Your task to perform on an android device: Show me popular videos on Youtube Image 0: 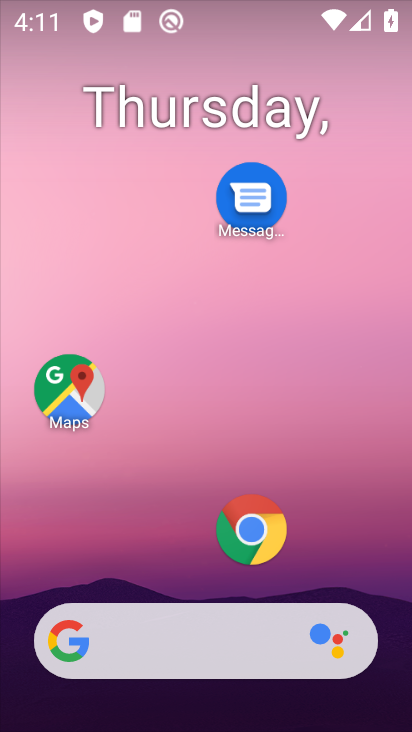
Step 0: click (266, 529)
Your task to perform on an android device: Show me popular videos on Youtube Image 1: 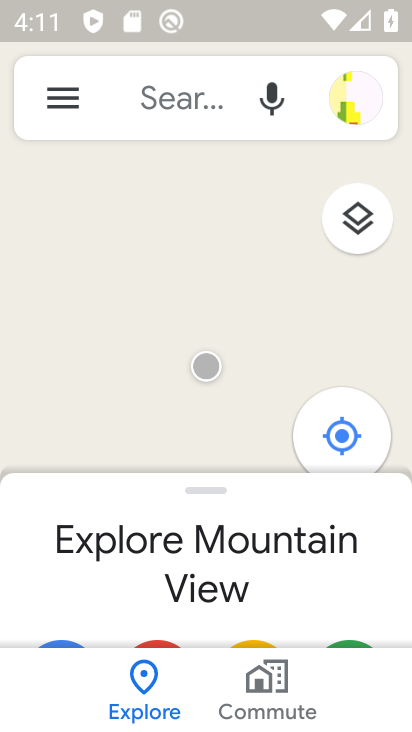
Step 1: press home button
Your task to perform on an android device: Show me popular videos on Youtube Image 2: 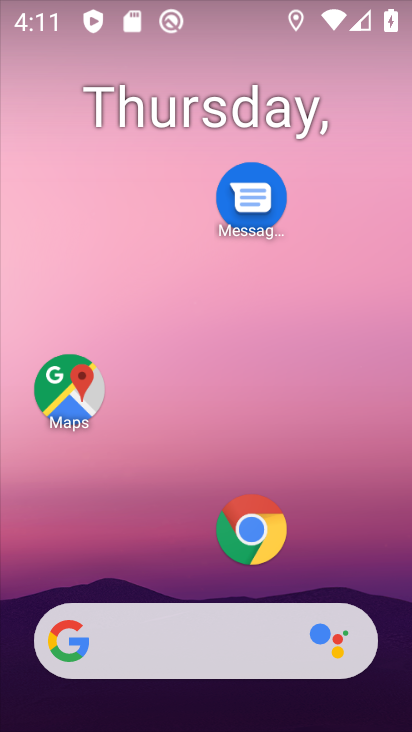
Step 2: drag from (147, 549) to (236, 43)
Your task to perform on an android device: Show me popular videos on Youtube Image 3: 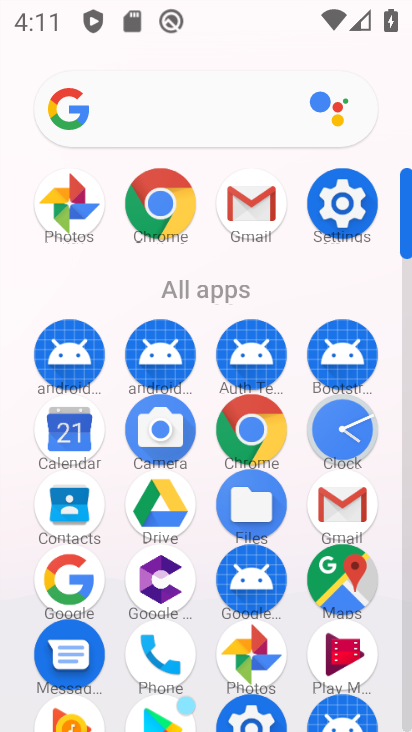
Step 3: drag from (214, 629) to (303, 65)
Your task to perform on an android device: Show me popular videos on Youtube Image 4: 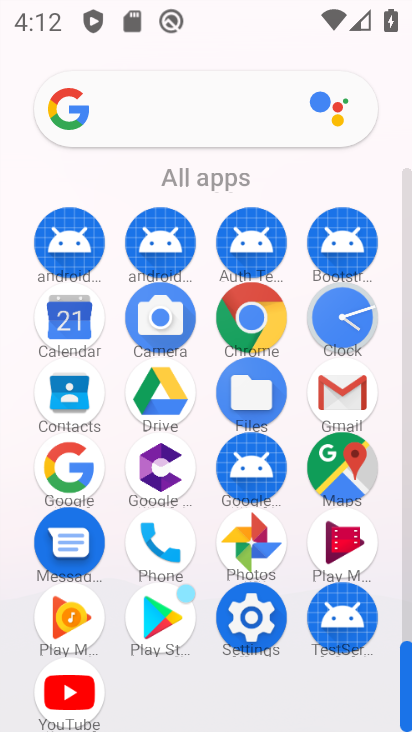
Step 4: click (60, 683)
Your task to perform on an android device: Show me popular videos on Youtube Image 5: 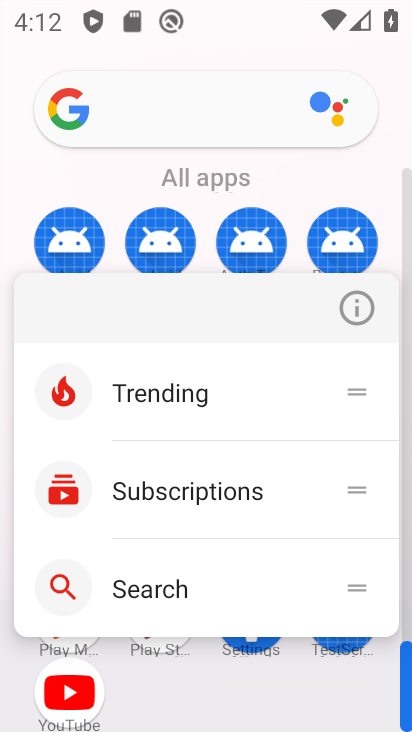
Step 5: click (66, 688)
Your task to perform on an android device: Show me popular videos on Youtube Image 6: 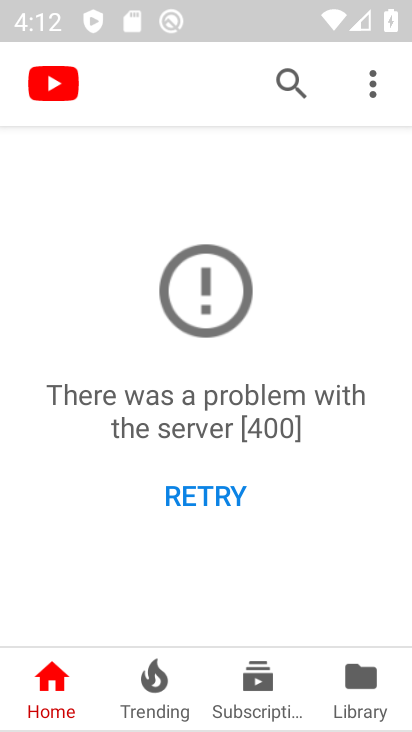
Step 6: click (172, 703)
Your task to perform on an android device: Show me popular videos on Youtube Image 7: 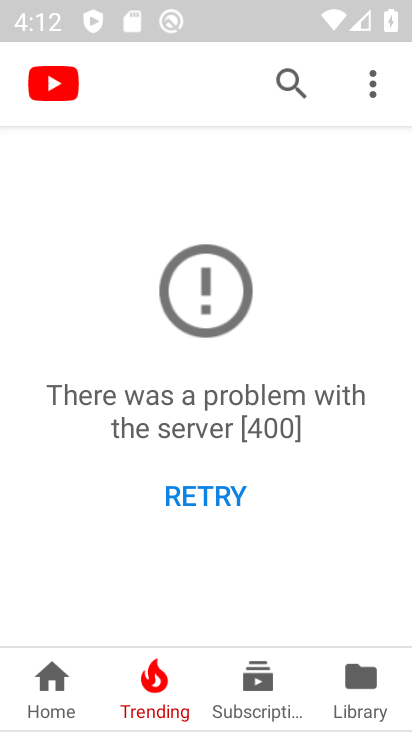
Step 7: task complete